Your task to perform on an android device: set an alarm Image 0: 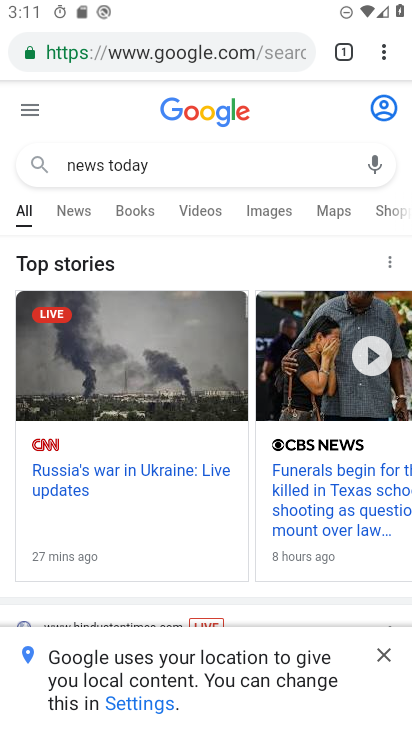
Step 0: press home button
Your task to perform on an android device: set an alarm Image 1: 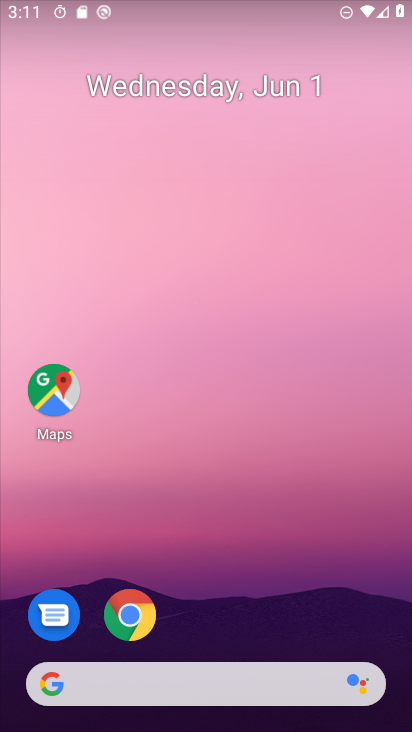
Step 1: drag from (295, 661) to (321, 6)
Your task to perform on an android device: set an alarm Image 2: 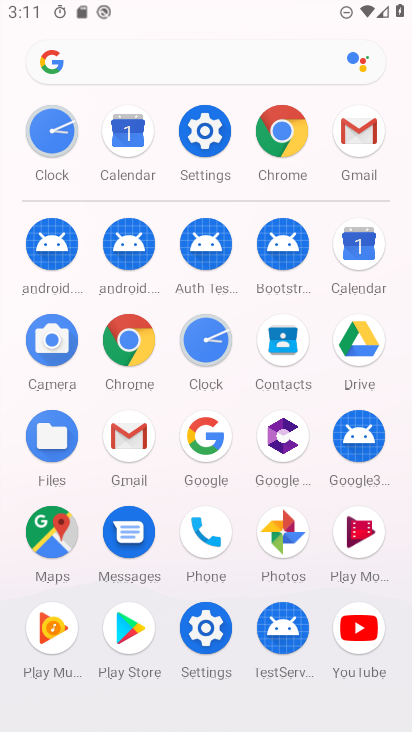
Step 2: click (207, 349)
Your task to perform on an android device: set an alarm Image 3: 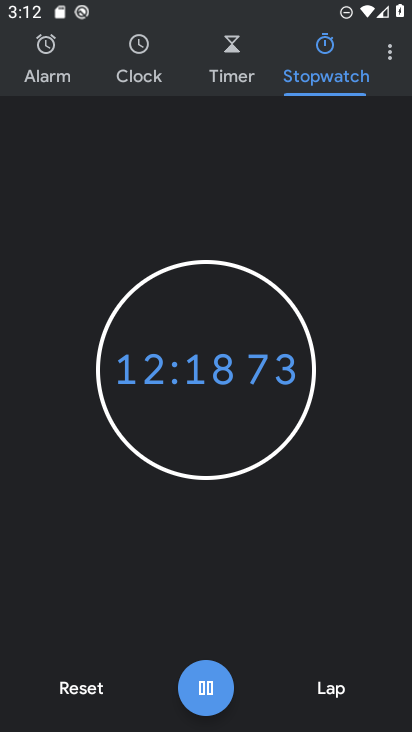
Step 3: click (54, 71)
Your task to perform on an android device: set an alarm Image 4: 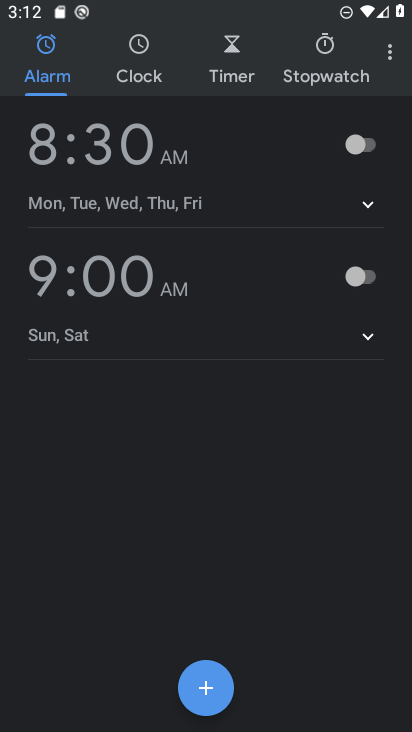
Step 4: click (366, 143)
Your task to perform on an android device: set an alarm Image 5: 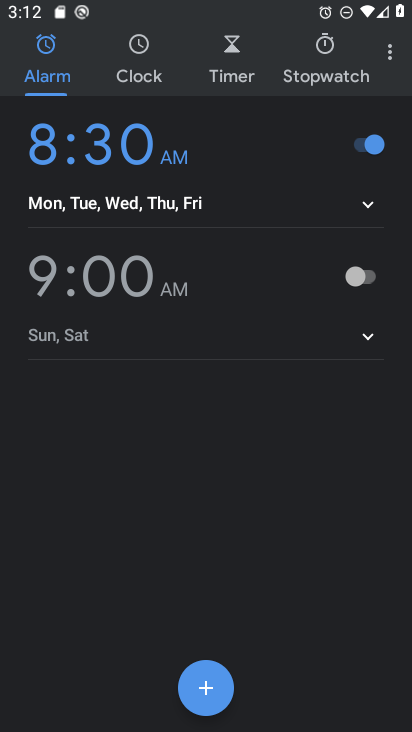
Step 5: task complete